Your task to perform on an android device: turn notification dots on Image 0: 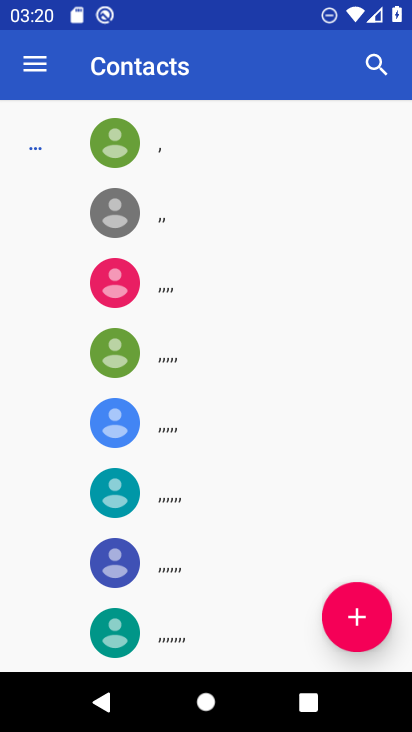
Step 0: press home button
Your task to perform on an android device: turn notification dots on Image 1: 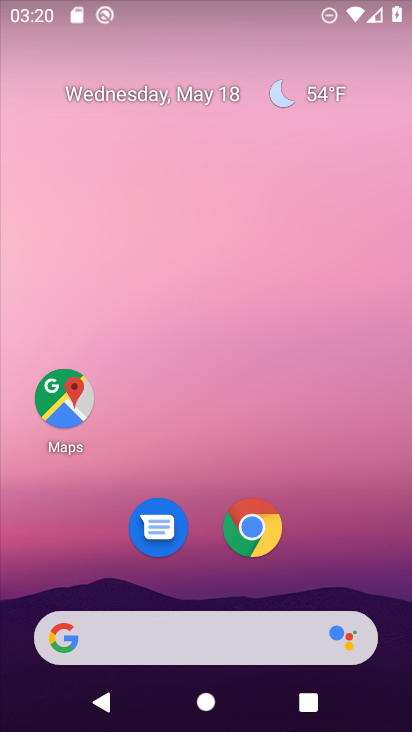
Step 1: drag from (171, 569) to (265, 1)
Your task to perform on an android device: turn notification dots on Image 2: 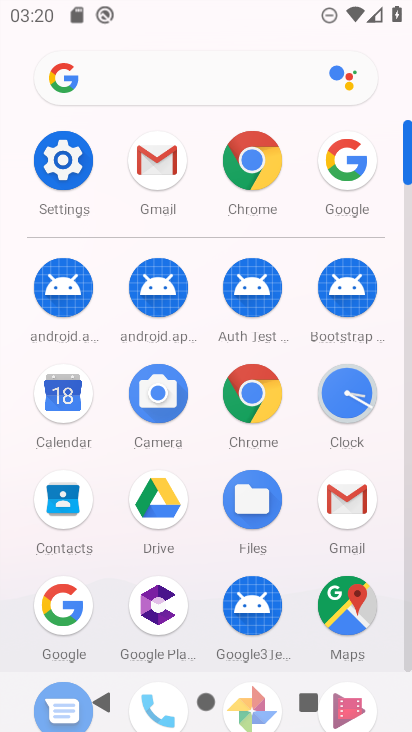
Step 2: click (69, 178)
Your task to perform on an android device: turn notification dots on Image 3: 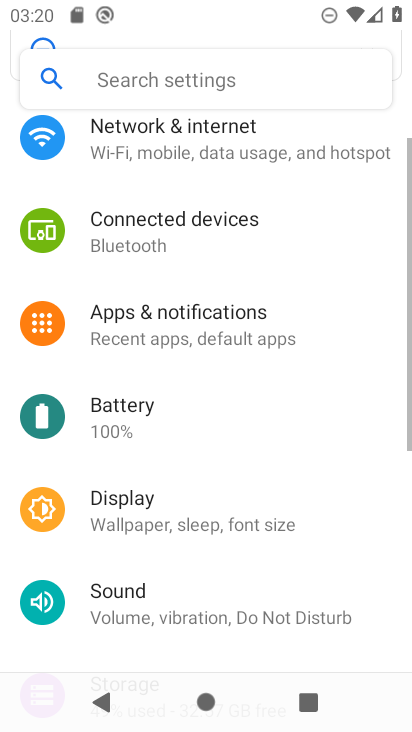
Step 3: drag from (243, 517) to (244, 415)
Your task to perform on an android device: turn notification dots on Image 4: 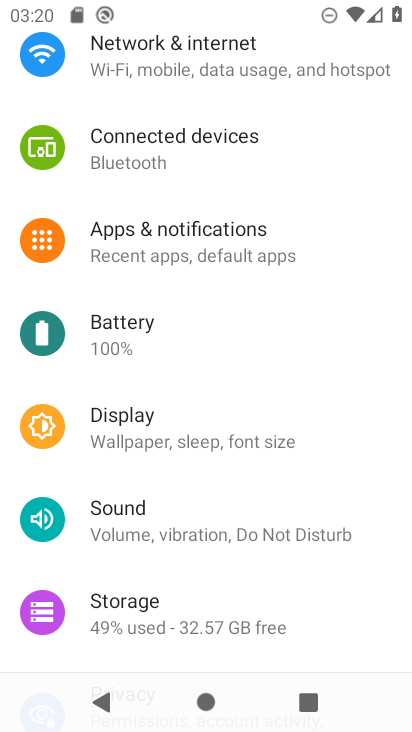
Step 4: click (206, 282)
Your task to perform on an android device: turn notification dots on Image 5: 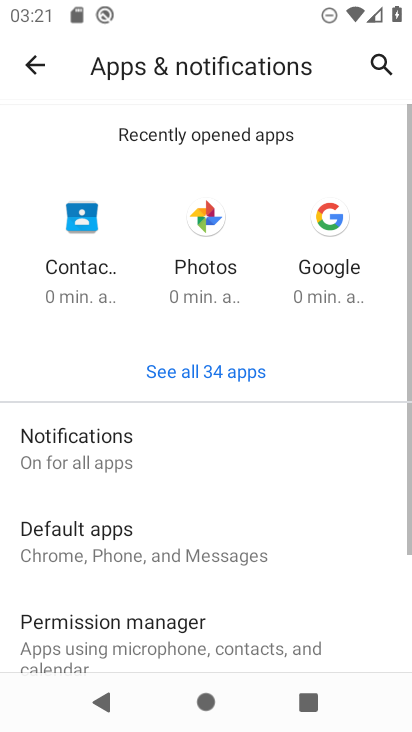
Step 5: click (189, 464)
Your task to perform on an android device: turn notification dots on Image 6: 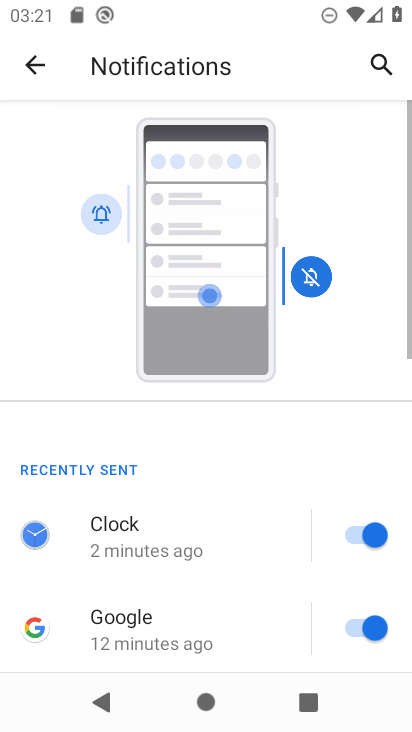
Step 6: drag from (223, 577) to (217, 124)
Your task to perform on an android device: turn notification dots on Image 7: 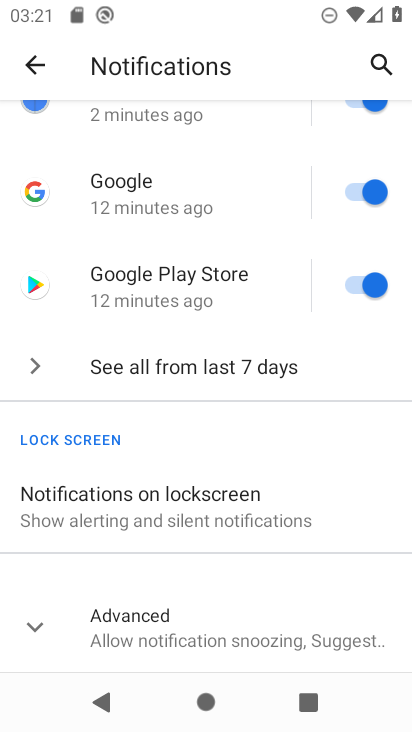
Step 7: click (234, 639)
Your task to perform on an android device: turn notification dots on Image 8: 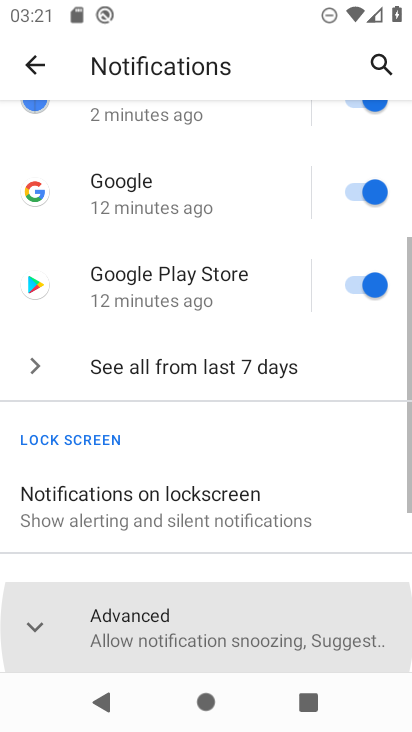
Step 8: task complete